Your task to perform on an android device: open sync settings in chrome Image 0: 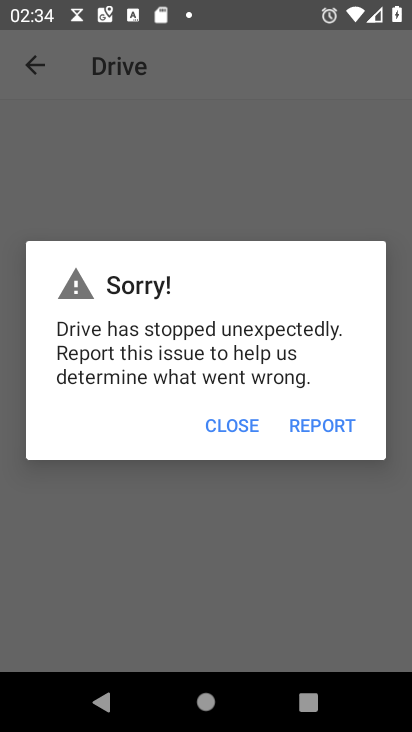
Step 0: press home button
Your task to perform on an android device: open sync settings in chrome Image 1: 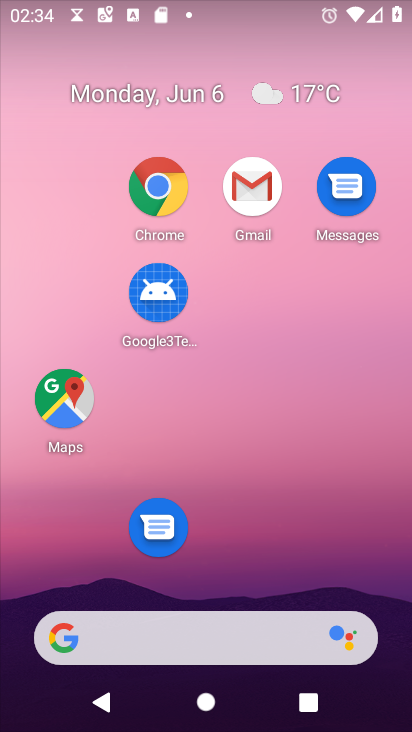
Step 1: click (154, 187)
Your task to perform on an android device: open sync settings in chrome Image 2: 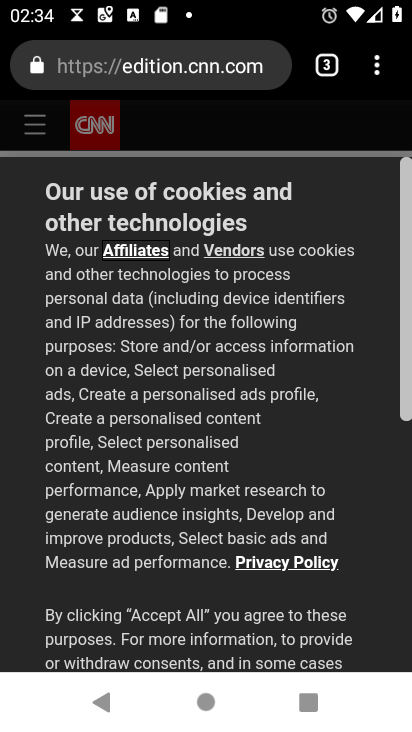
Step 2: click (376, 68)
Your task to perform on an android device: open sync settings in chrome Image 3: 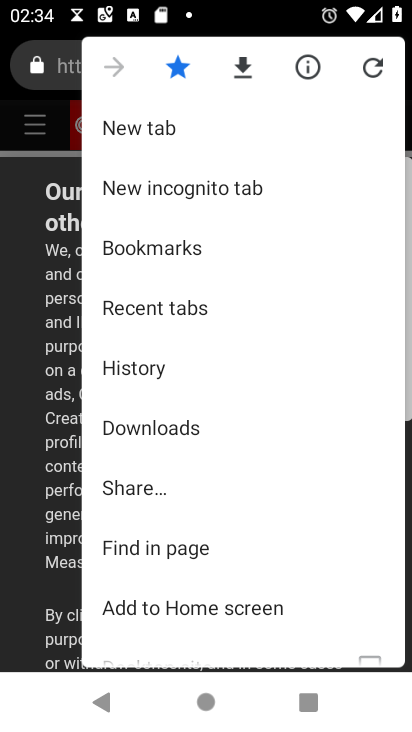
Step 3: drag from (316, 589) to (307, 199)
Your task to perform on an android device: open sync settings in chrome Image 4: 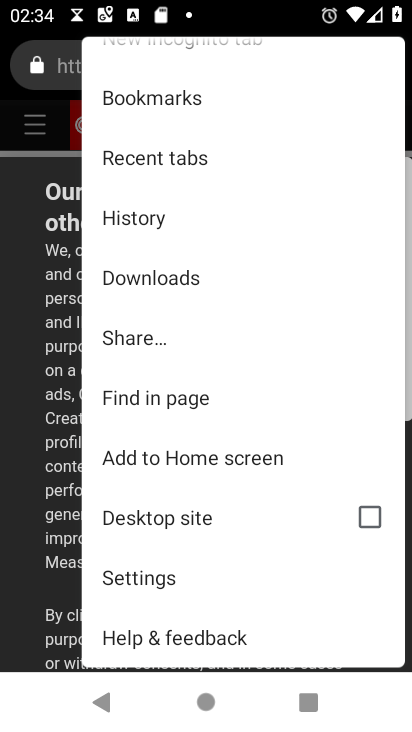
Step 4: click (140, 570)
Your task to perform on an android device: open sync settings in chrome Image 5: 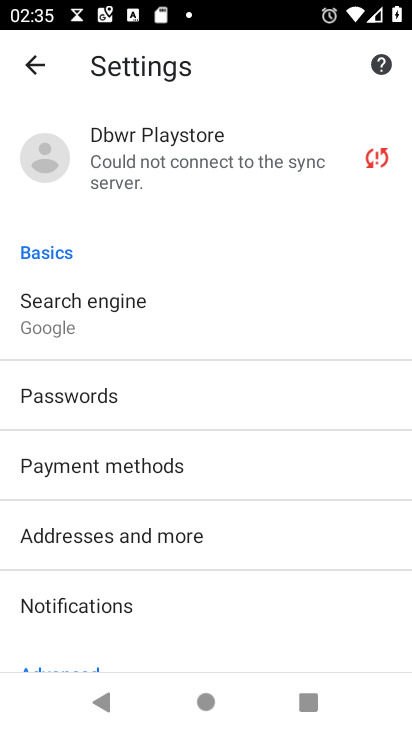
Step 5: drag from (369, 595) to (359, 273)
Your task to perform on an android device: open sync settings in chrome Image 6: 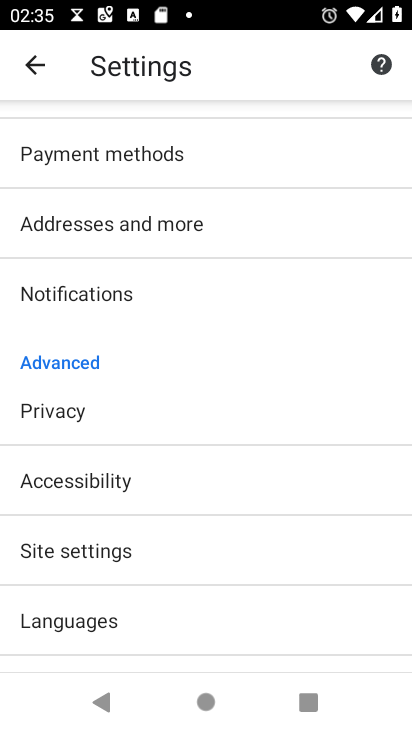
Step 6: click (198, 416)
Your task to perform on an android device: open sync settings in chrome Image 7: 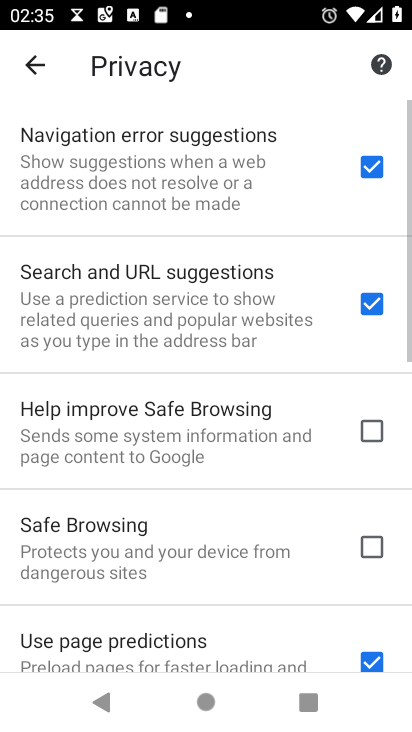
Step 7: drag from (254, 542) to (253, 279)
Your task to perform on an android device: open sync settings in chrome Image 8: 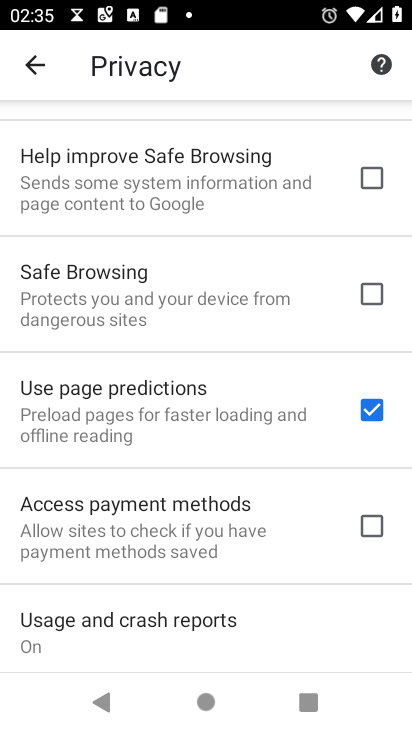
Step 8: drag from (161, 556) to (155, 124)
Your task to perform on an android device: open sync settings in chrome Image 9: 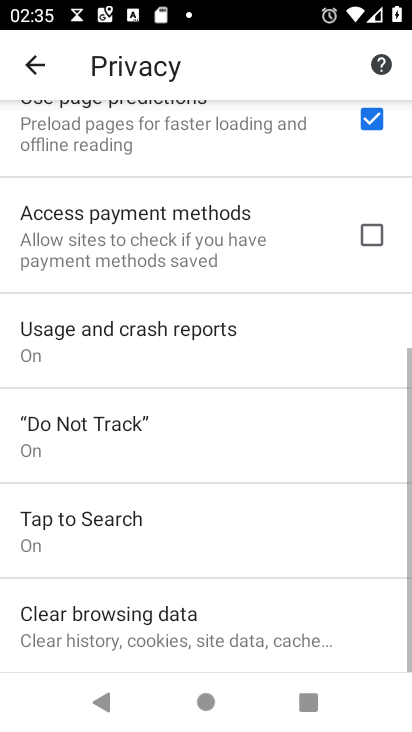
Step 9: drag from (171, 560) to (189, 326)
Your task to perform on an android device: open sync settings in chrome Image 10: 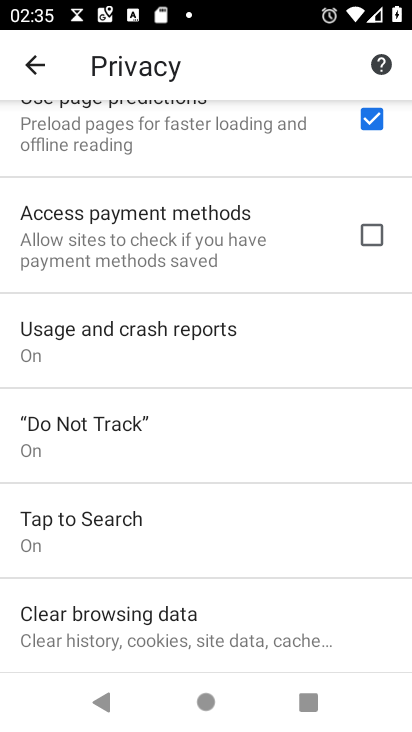
Step 10: click (34, 63)
Your task to perform on an android device: open sync settings in chrome Image 11: 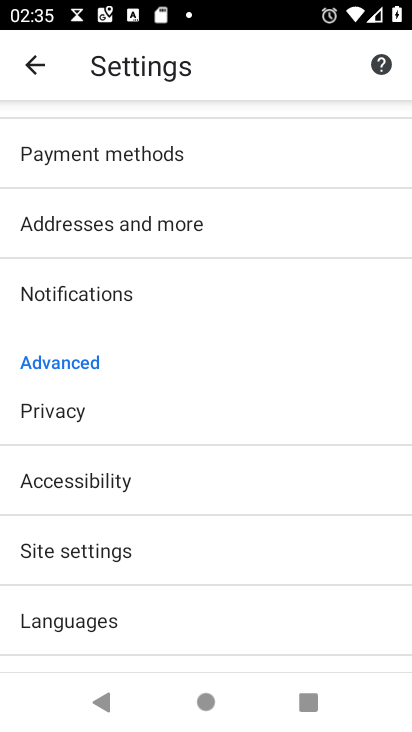
Step 11: click (169, 467)
Your task to perform on an android device: open sync settings in chrome Image 12: 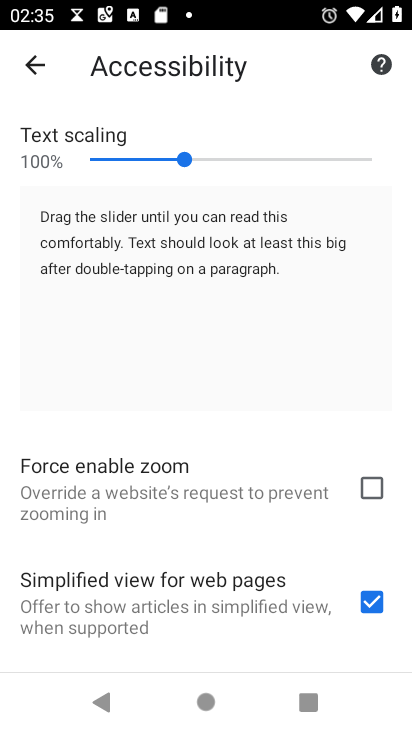
Step 12: drag from (218, 570) to (216, 397)
Your task to perform on an android device: open sync settings in chrome Image 13: 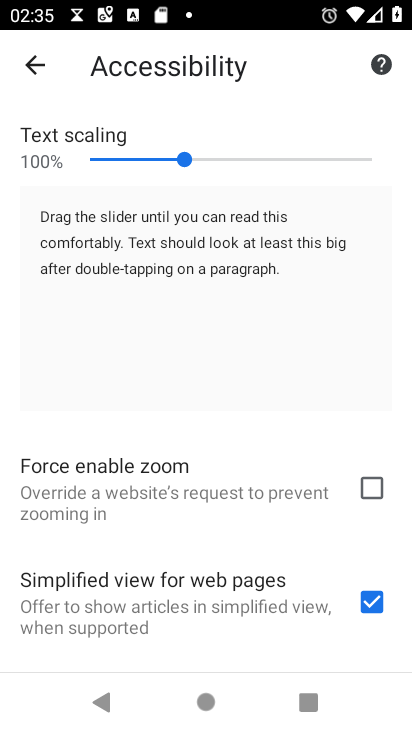
Step 13: click (27, 68)
Your task to perform on an android device: open sync settings in chrome Image 14: 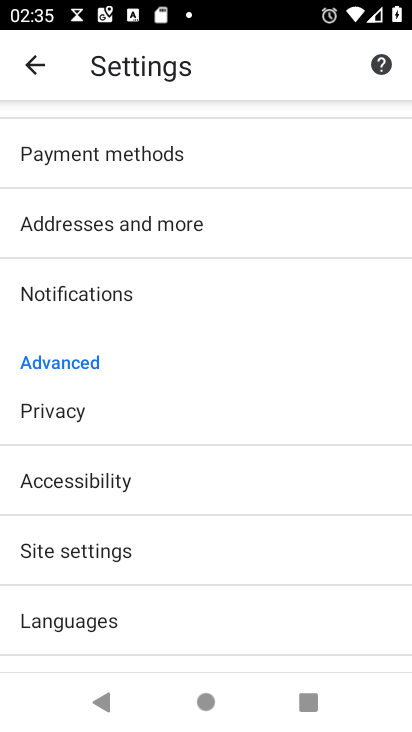
Step 14: click (146, 572)
Your task to perform on an android device: open sync settings in chrome Image 15: 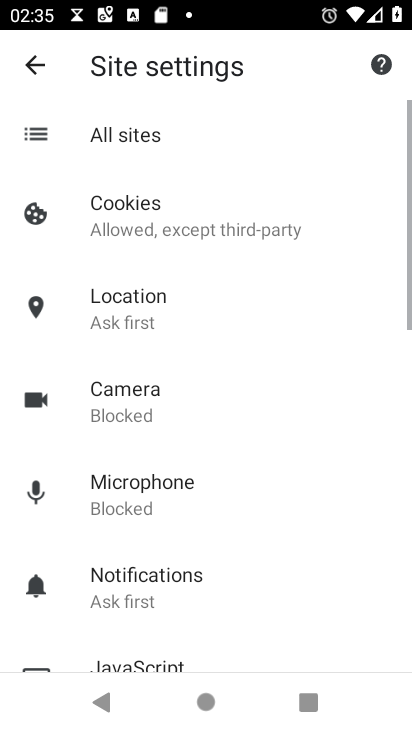
Step 15: drag from (235, 532) to (242, 137)
Your task to perform on an android device: open sync settings in chrome Image 16: 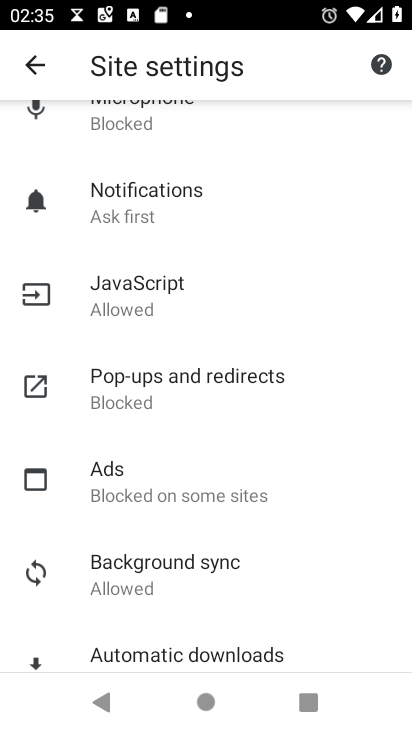
Step 16: click (205, 584)
Your task to perform on an android device: open sync settings in chrome Image 17: 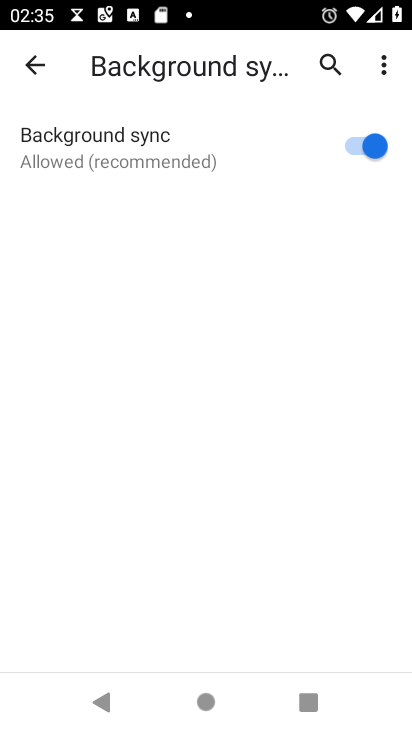
Step 17: task complete